Your task to perform on an android device: Check the news Image 0: 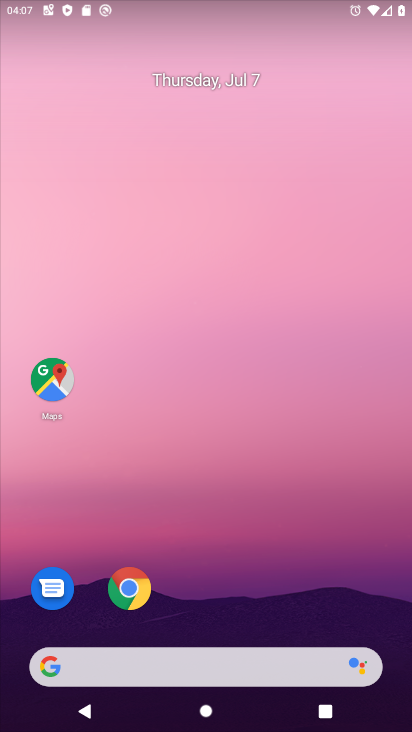
Step 0: drag from (202, 666) to (208, 277)
Your task to perform on an android device: Check the news Image 1: 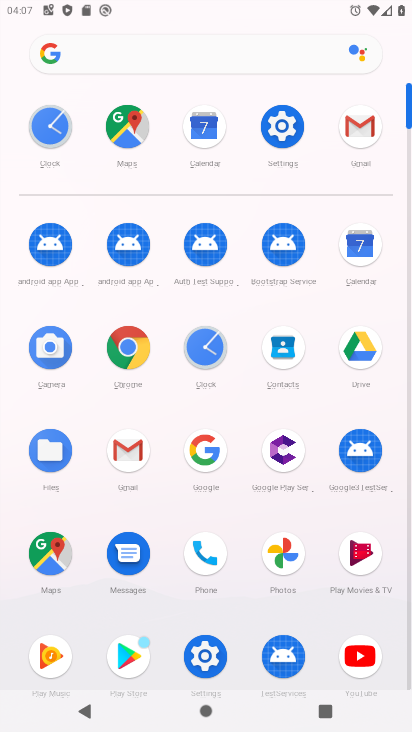
Step 1: click (194, 465)
Your task to perform on an android device: Check the news Image 2: 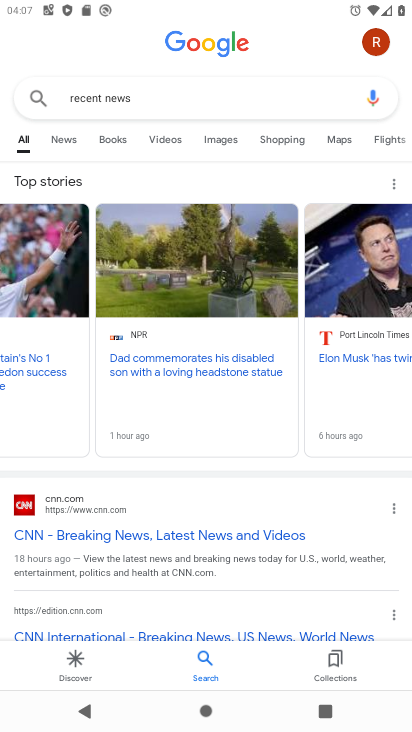
Step 2: task complete